Your task to perform on an android device: turn on improve location accuracy Image 0: 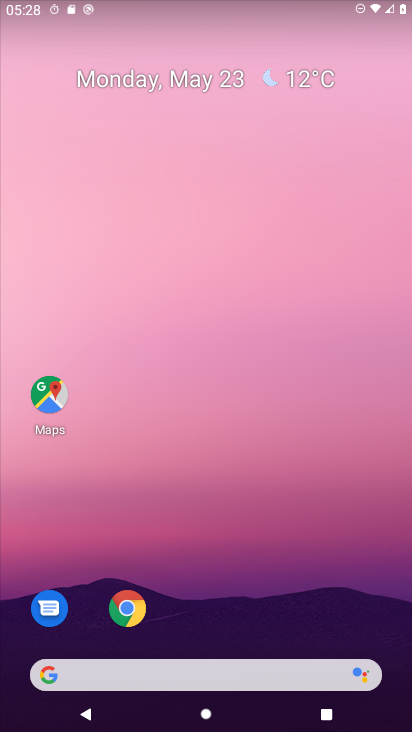
Step 0: drag from (280, 451) to (193, 15)
Your task to perform on an android device: turn on improve location accuracy Image 1: 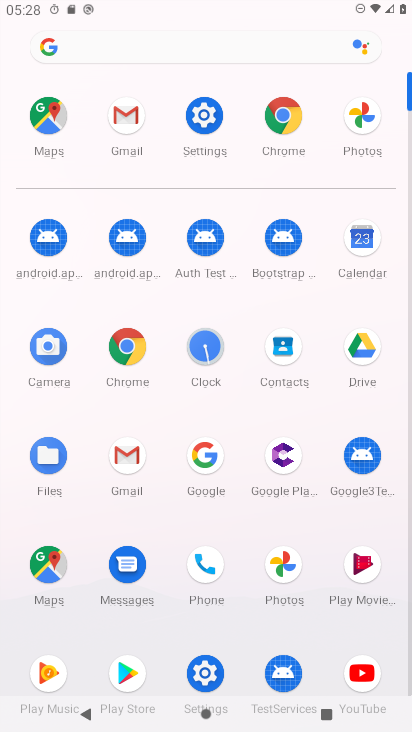
Step 1: click (206, 112)
Your task to perform on an android device: turn on improve location accuracy Image 2: 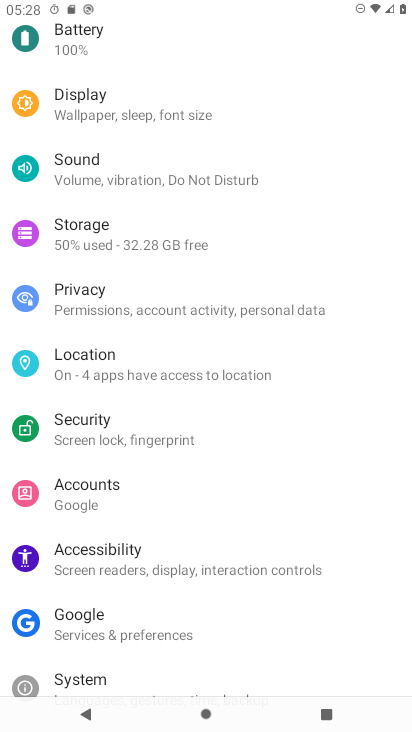
Step 2: click (168, 368)
Your task to perform on an android device: turn on improve location accuracy Image 3: 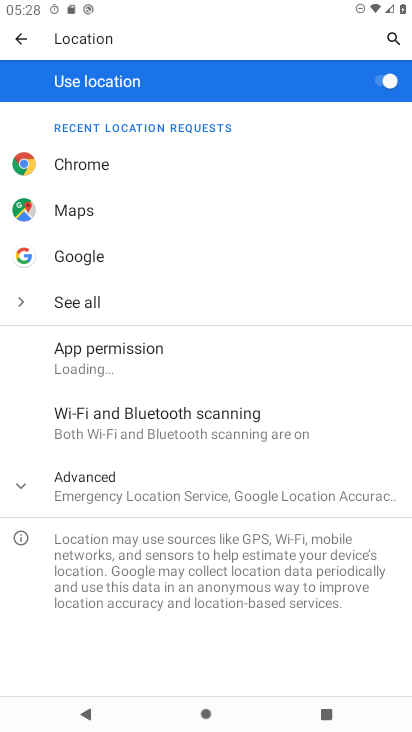
Step 3: click (169, 485)
Your task to perform on an android device: turn on improve location accuracy Image 4: 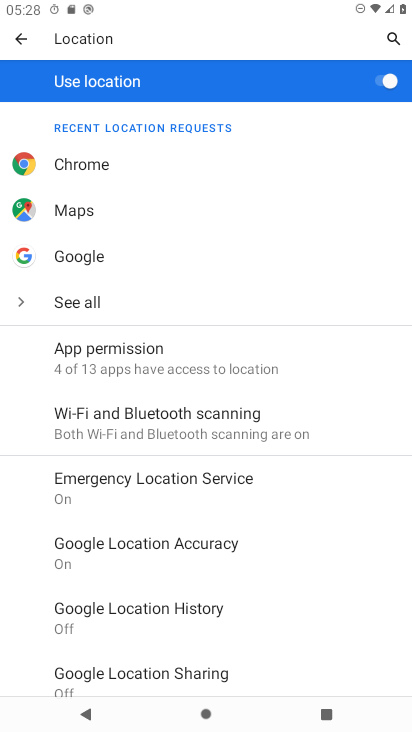
Step 4: click (160, 551)
Your task to perform on an android device: turn on improve location accuracy Image 5: 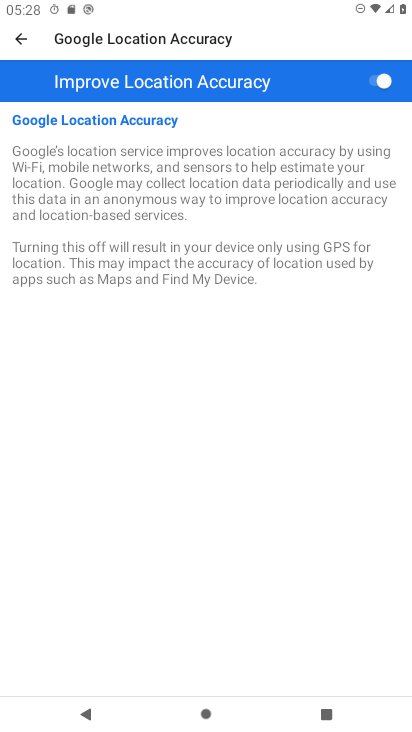
Step 5: task complete